Your task to perform on an android device: Go to Amazon Image 0: 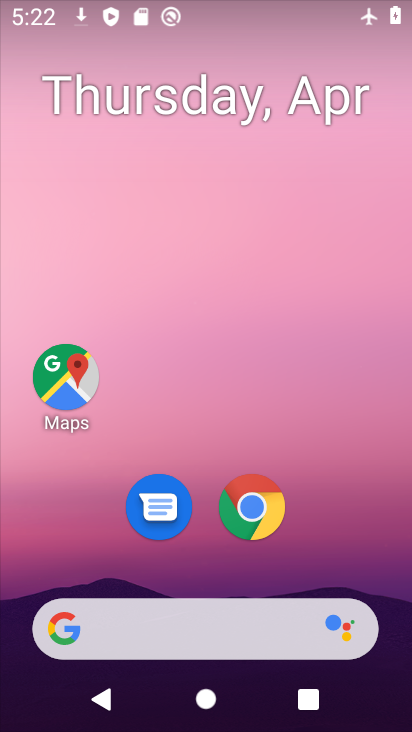
Step 0: drag from (319, 530) to (336, 98)
Your task to perform on an android device: Go to Amazon Image 1: 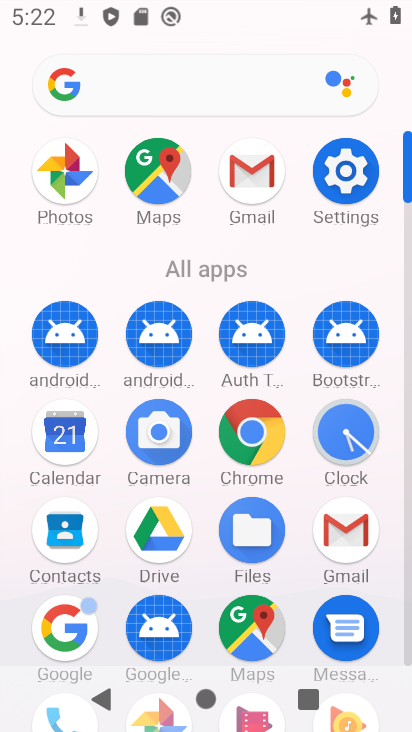
Step 1: drag from (331, 55) to (318, 495)
Your task to perform on an android device: Go to Amazon Image 2: 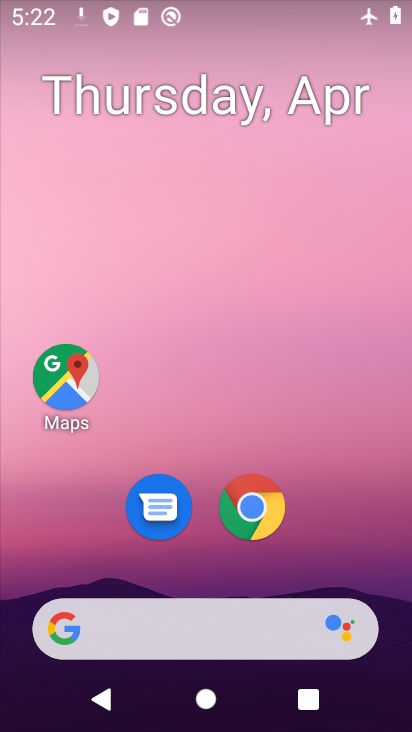
Step 2: drag from (287, 9) to (297, 495)
Your task to perform on an android device: Go to Amazon Image 3: 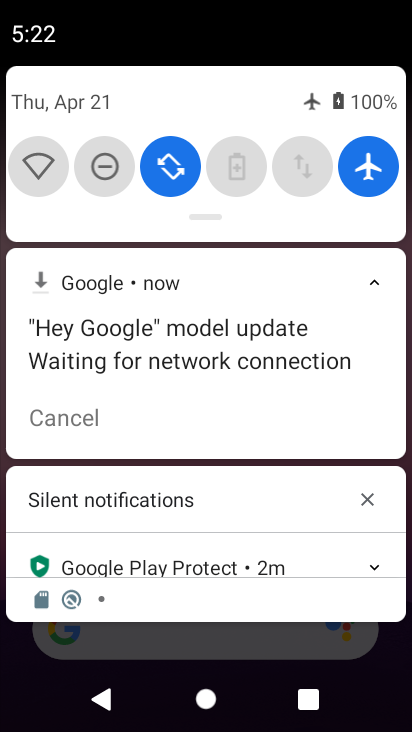
Step 3: click (372, 161)
Your task to perform on an android device: Go to Amazon Image 4: 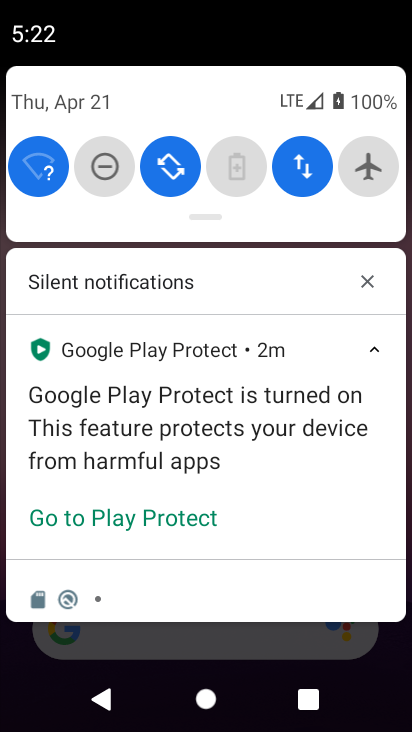
Step 4: drag from (362, 528) to (365, 43)
Your task to perform on an android device: Go to Amazon Image 5: 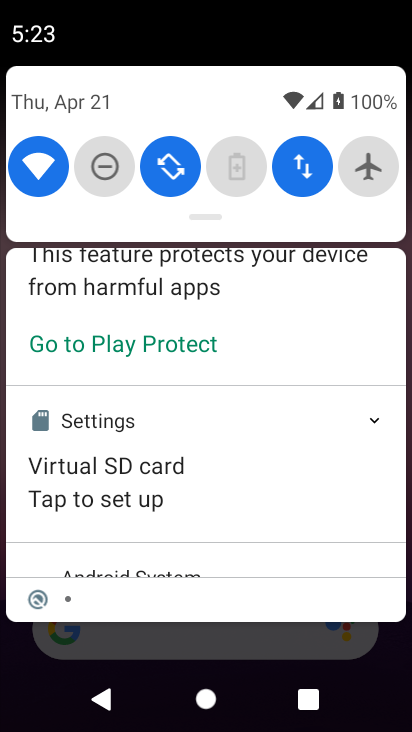
Step 5: click (391, 655)
Your task to perform on an android device: Go to Amazon Image 6: 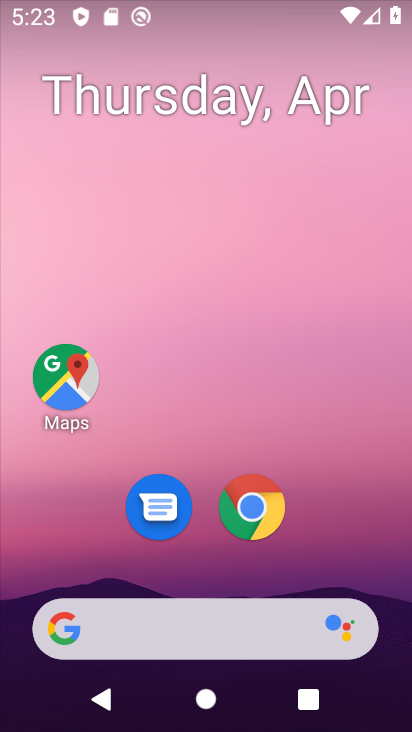
Step 6: drag from (314, 548) to (327, 120)
Your task to perform on an android device: Go to Amazon Image 7: 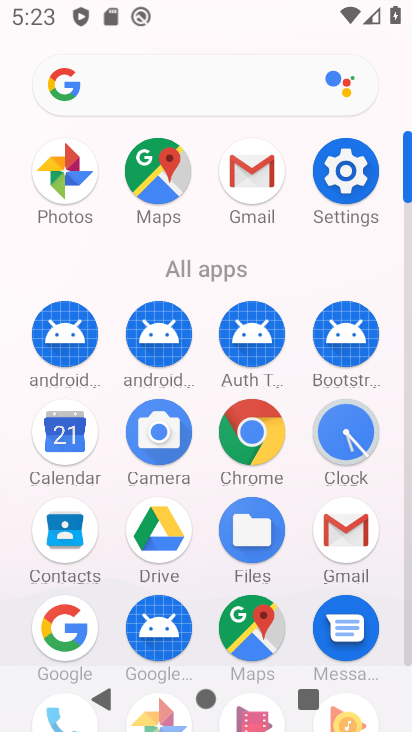
Step 7: drag from (302, 281) to (332, 11)
Your task to perform on an android device: Go to Amazon Image 8: 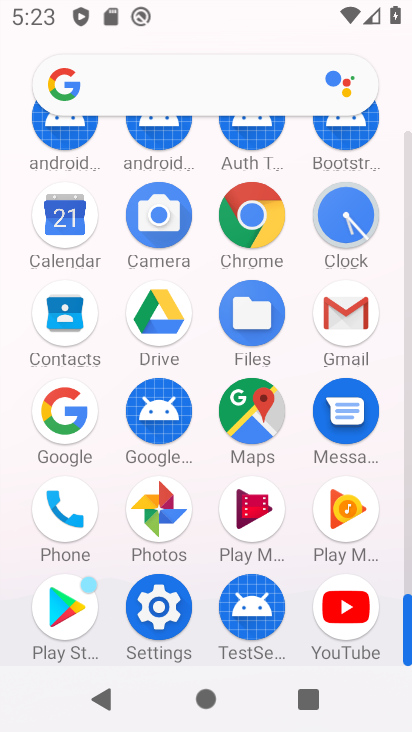
Step 8: click (242, 214)
Your task to perform on an android device: Go to Amazon Image 9: 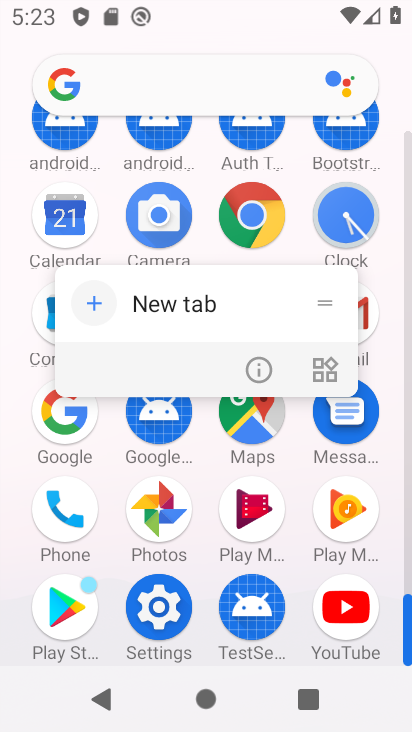
Step 9: click (256, 223)
Your task to perform on an android device: Go to Amazon Image 10: 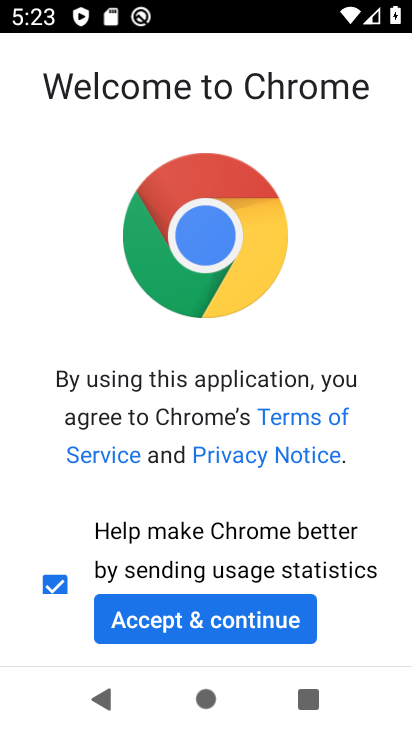
Step 10: click (200, 617)
Your task to perform on an android device: Go to Amazon Image 11: 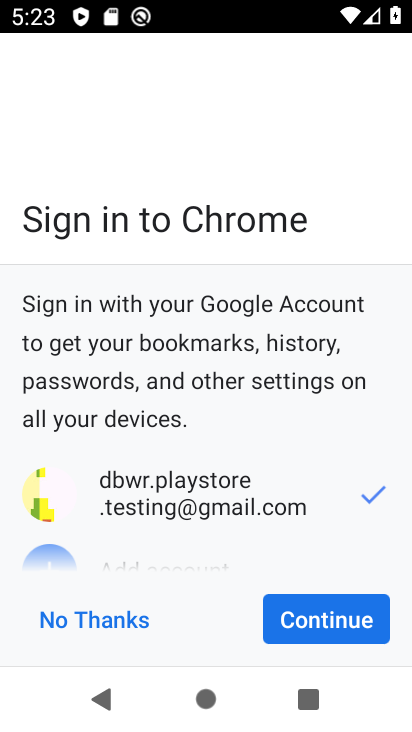
Step 11: click (344, 605)
Your task to perform on an android device: Go to Amazon Image 12: 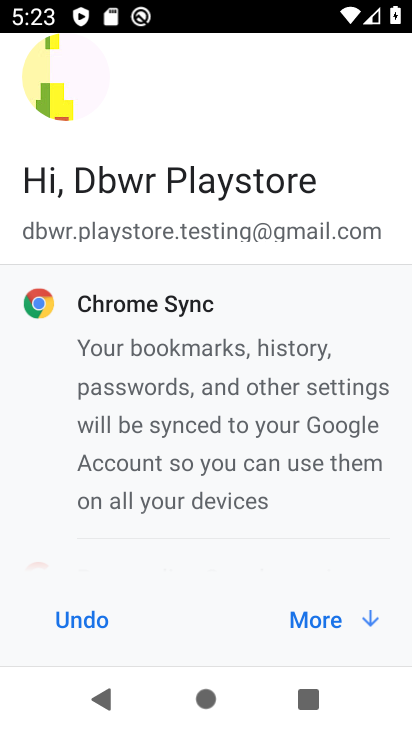
Step 12: click (335, 617)
Your task to perform on an android device: Go to Amazon Image 13: 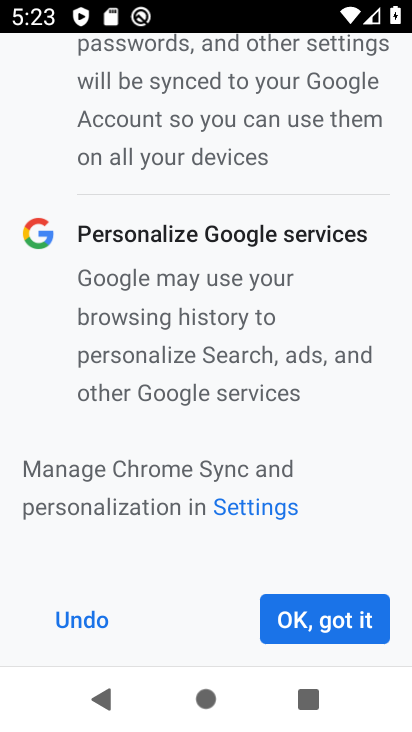
Step 13: click (335, 617)
Your task to perform on an android device: Go to Amazon Image 14: 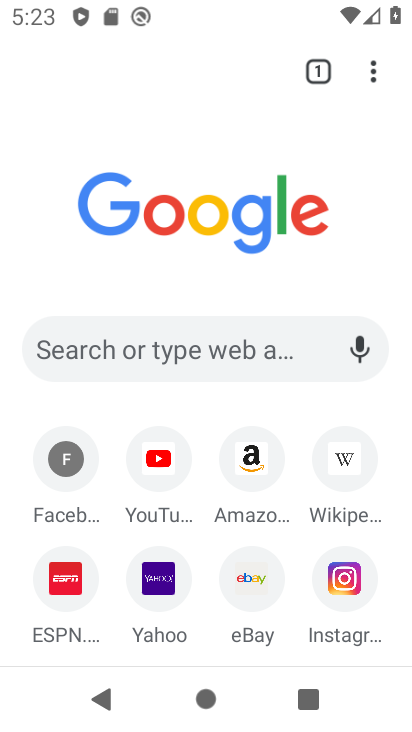
Step 14: click (252, 454)
Your task to perform on an android device: Go to Amazon Image 15: 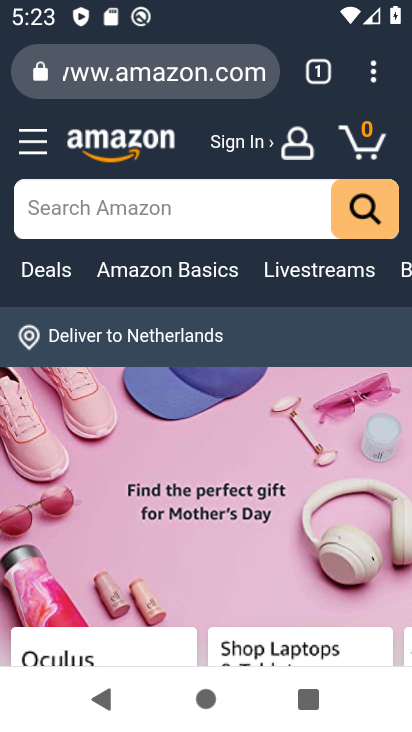
Step 15: task complete